Your task to perform on an android device: change the clock style Image 0: 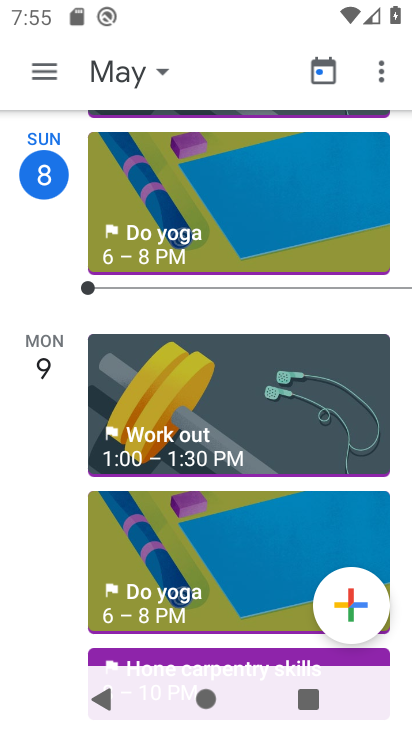
Step 0: press back button
Your task to perform on an android device: change the clock style Image 1: 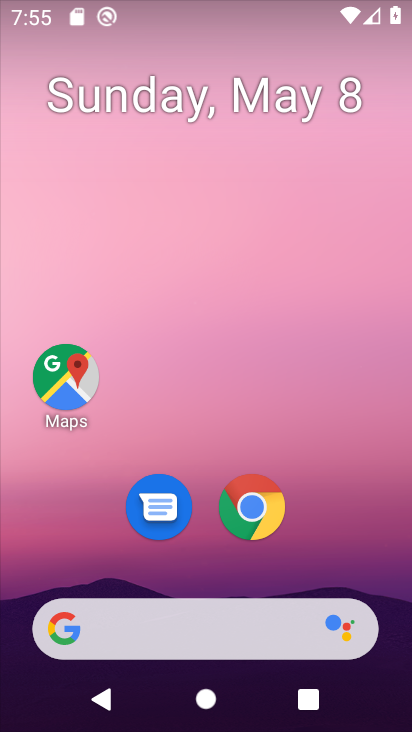
Step 1: drag from (201, 563) to (223, 138)
Your task to perform on an android device: change the clock style Image 2: 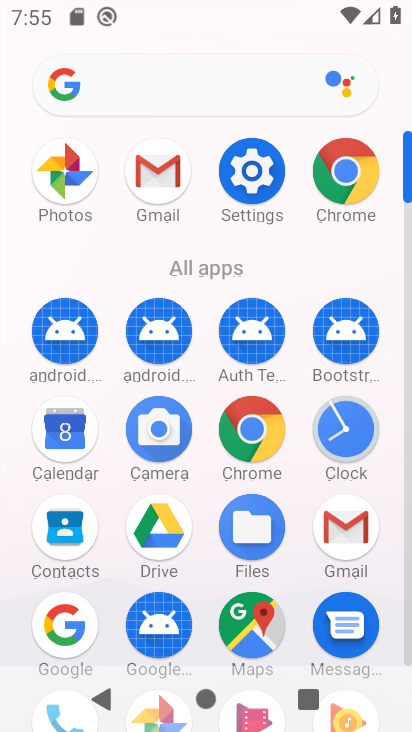
Step 2: click (331, 429)
Your task to perform on an android device: change the clock style Image 3: 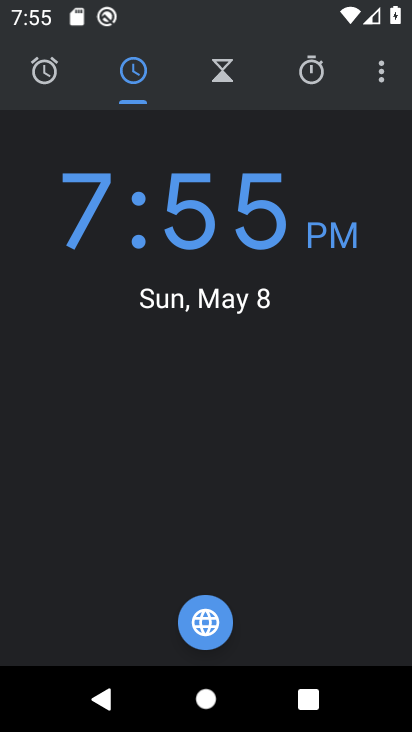
Step 3: click (378, 70)
Your task to perform on an android device: change the clock style Image 4: 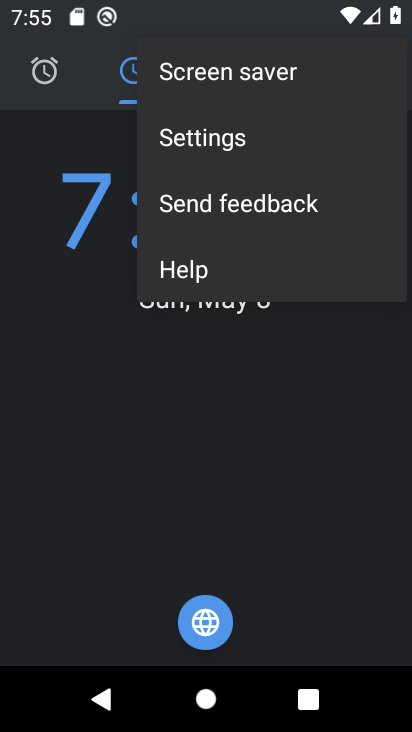
Step 4: click (267, 123)
Your task to perform on an android device: change the clock style Image 5: 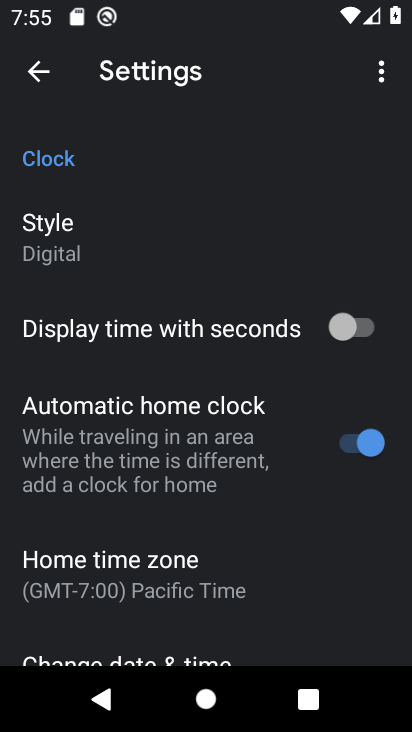
Step 5: click (124, 229)
Your task to perform on an android device: change the clock style Image 6: 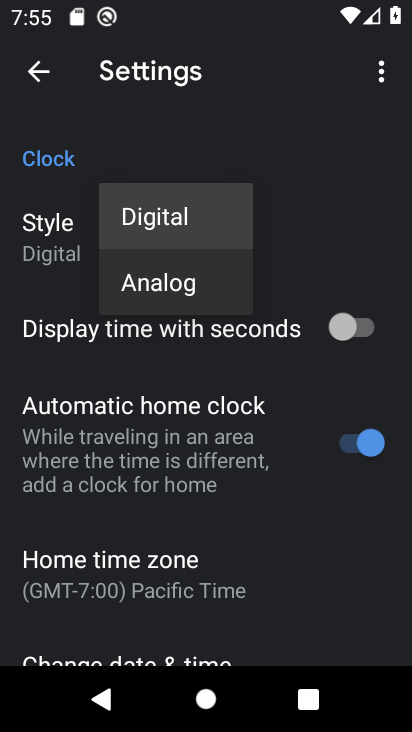
Step 6: click (133, 284)
Your task to perform on an android device: change the clock style Image 7: 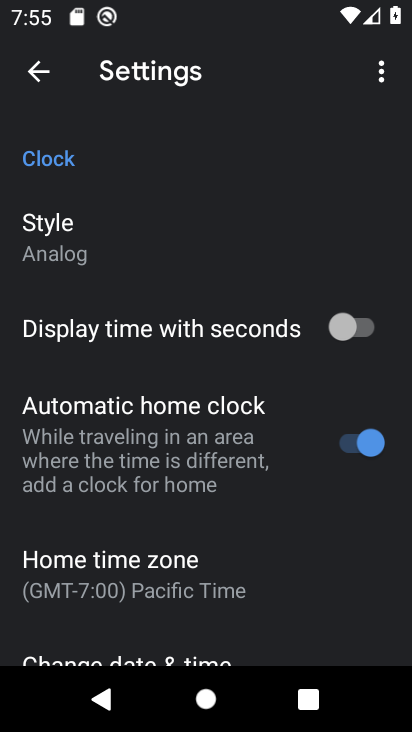
Step 7: task complete